Your task to perform on an android device: Open maps Image 0: 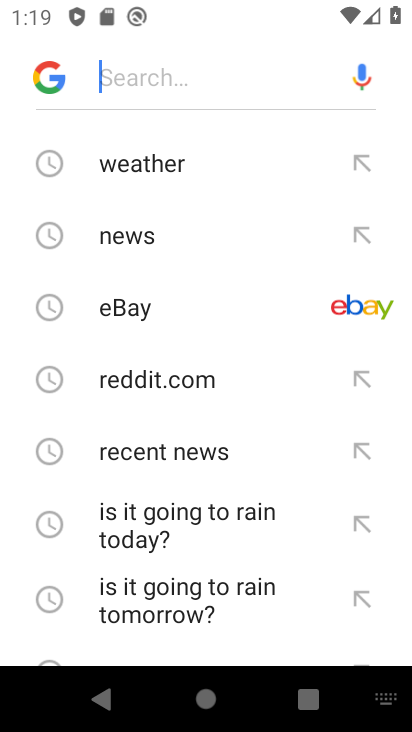
Step 0: press back button
Your task to perform on an android device: Open maps Image 1: 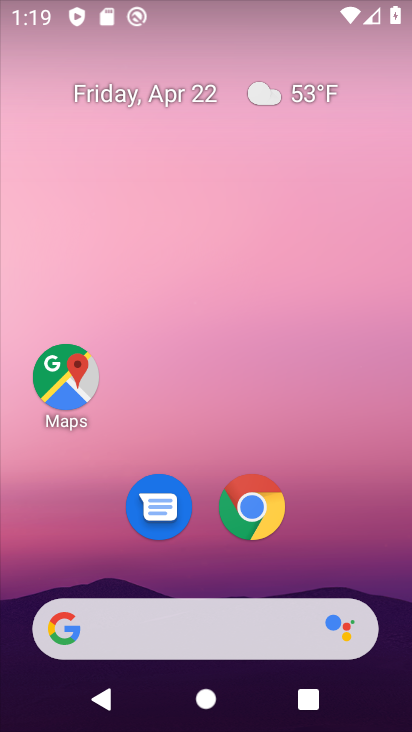
Step 1: click (42, 394)
Your task to perform on an android device: Open maps Image 2: 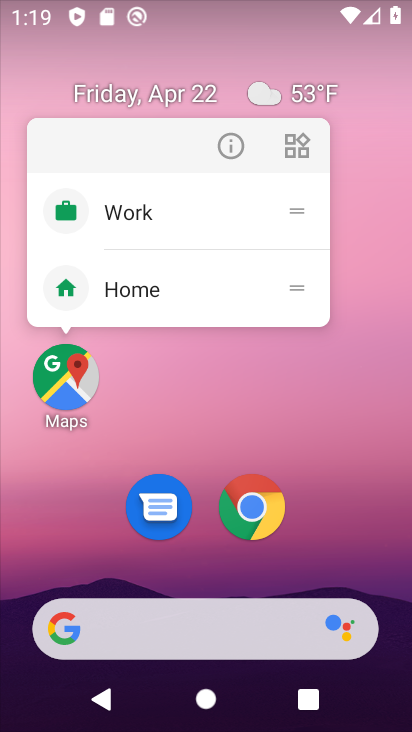
Step 2: click (112, 224)
Your task to perform on an android device: Open maps Image 3: 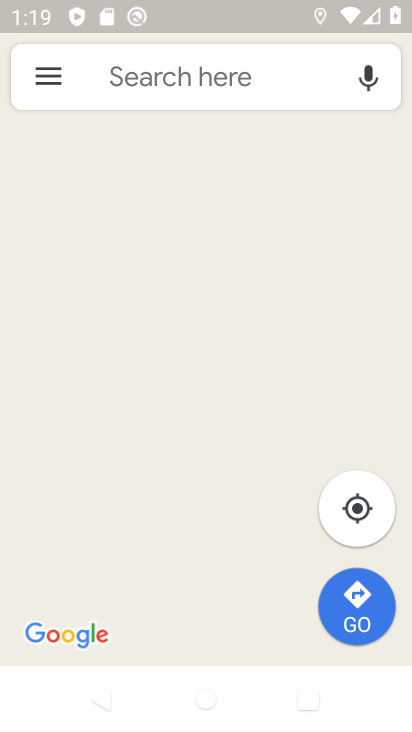
Step 3: task complete